Your task to perform on an android device: open app "Google Play Games" (install if not already installed) Image 0: 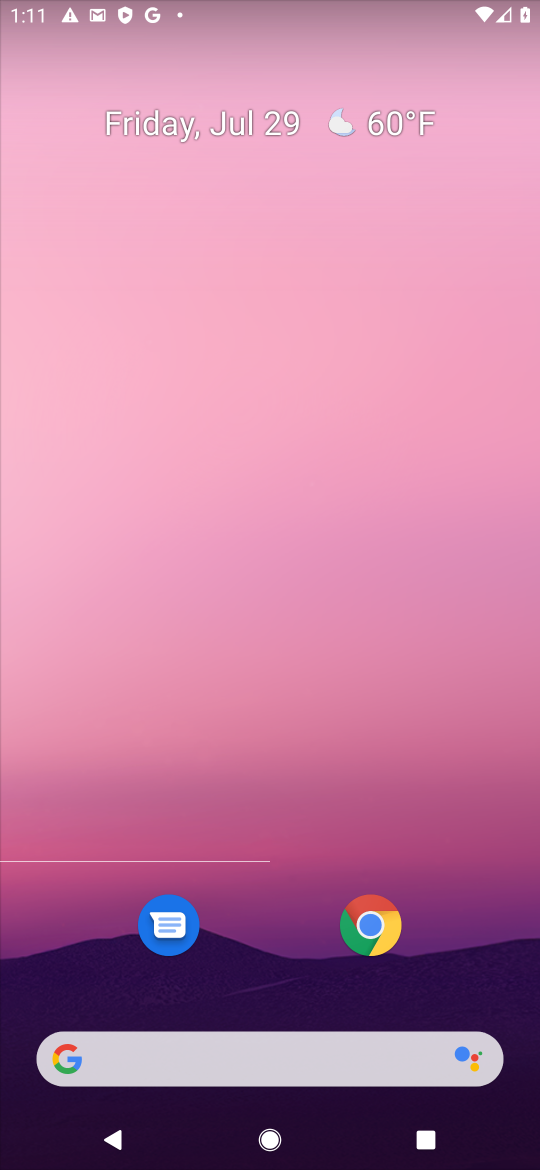
Step 0: press home button
Your task to perform on an android device: open app "Google Play Games" (install if not already installed) Image 1: 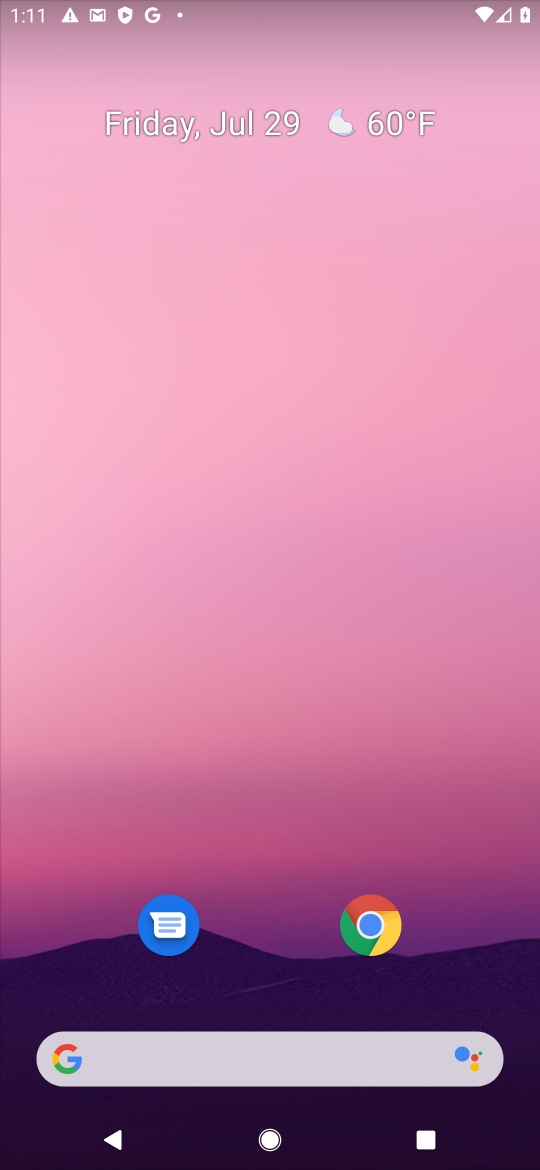
Step 1: drag from (223, 740) to (267, 272)
Your task to perform on an android device: open app "Google Play Games" (install if not already installed) Image 2: 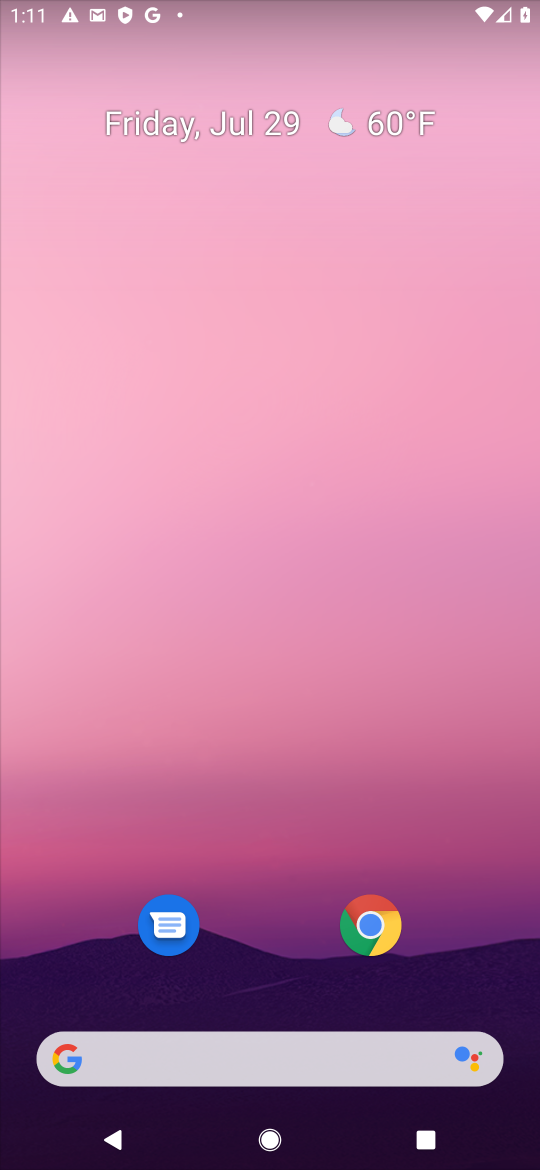
Step 2: drag from (386, 901) to (461, 105)
Your task to perform on an android device: open app "Google Play Games" (install if not already installed) Image 3: 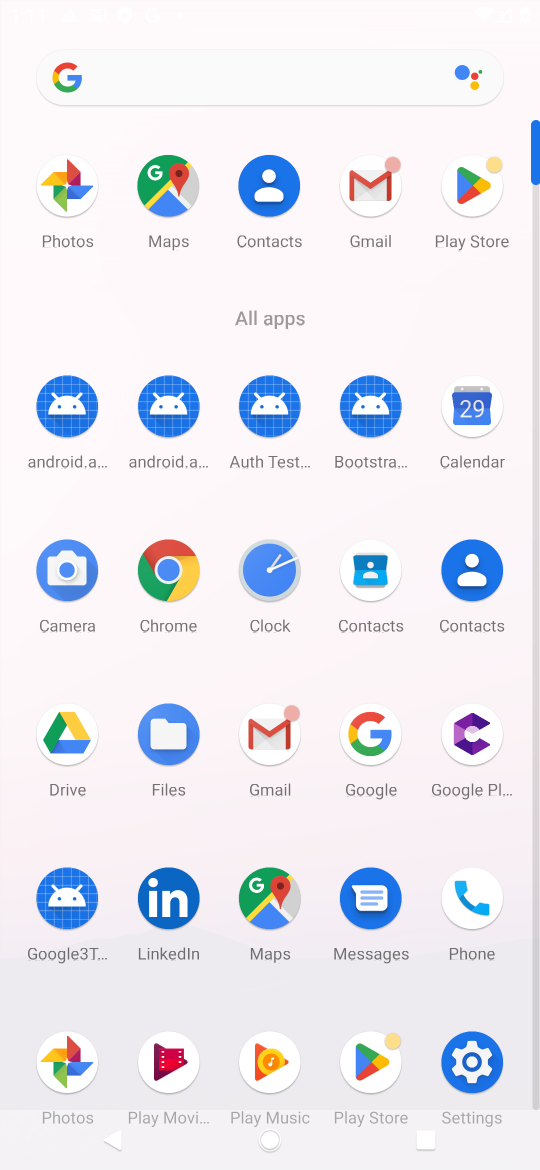
Step 3: click (477, 193)
Your task to perform on an android device: open app "Google Play Games" (install if not already installed) Image 4: 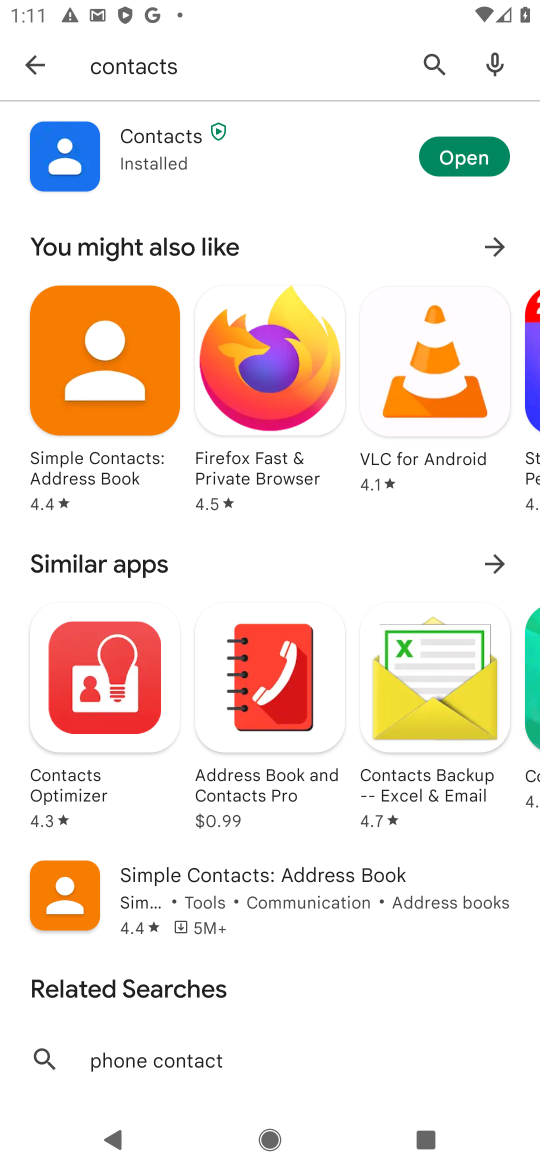
Step 4: click (429, 61)
Your task to perform on an android device: open app "Google Play Games" (install if not already installed) Image 5: 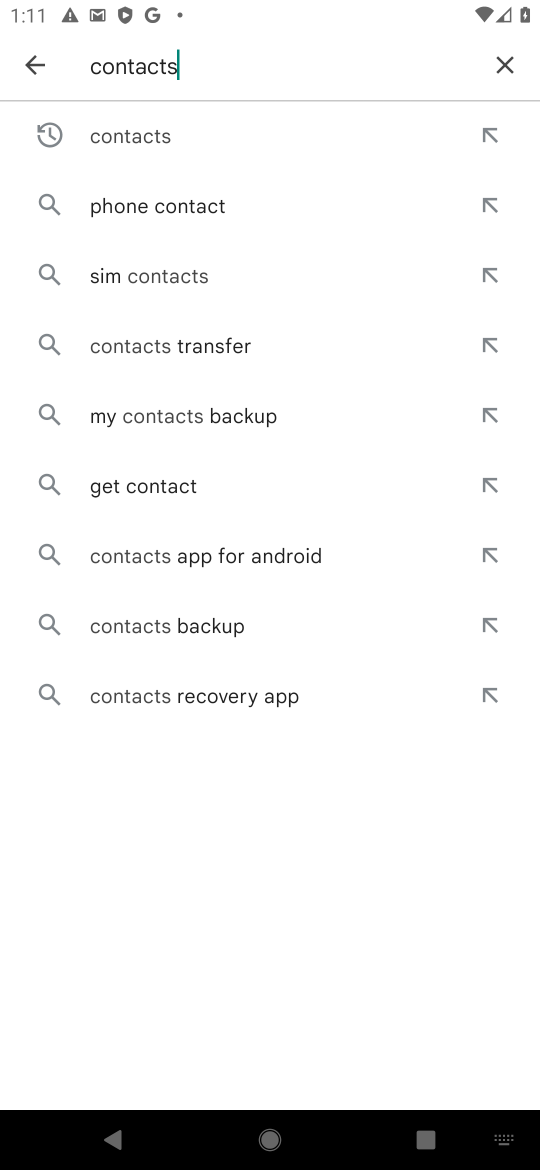
Step 5: click (511, 66)
Your task to perform on an android device: open app "Google Play Games" (install if not already installed) Image 6: 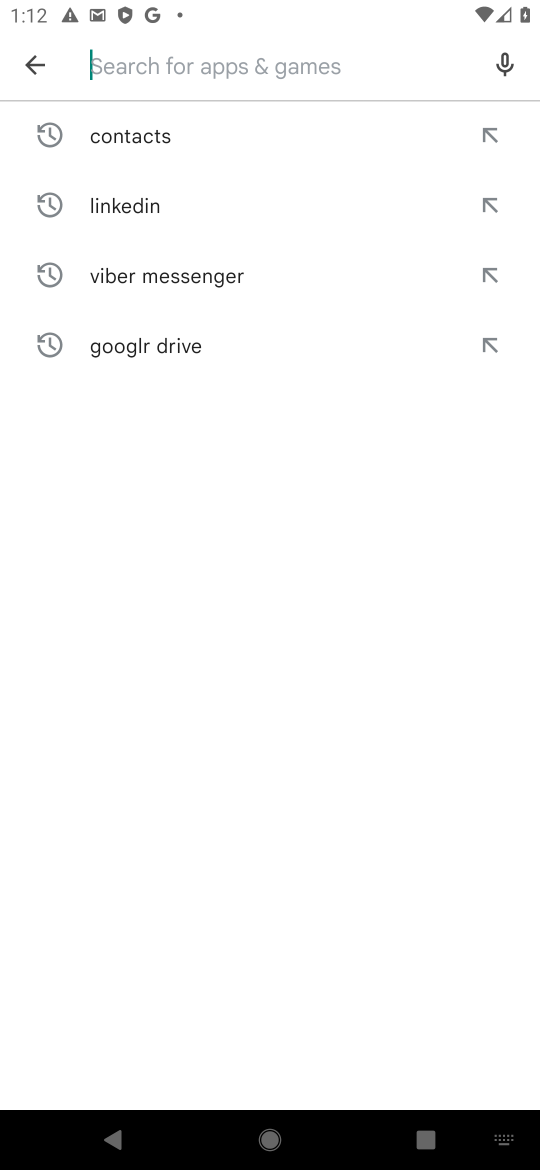
Step 6: type "google play games"
Your task to perform on an android device: open app "Google Play Games" (install if not already installed) Image 7: 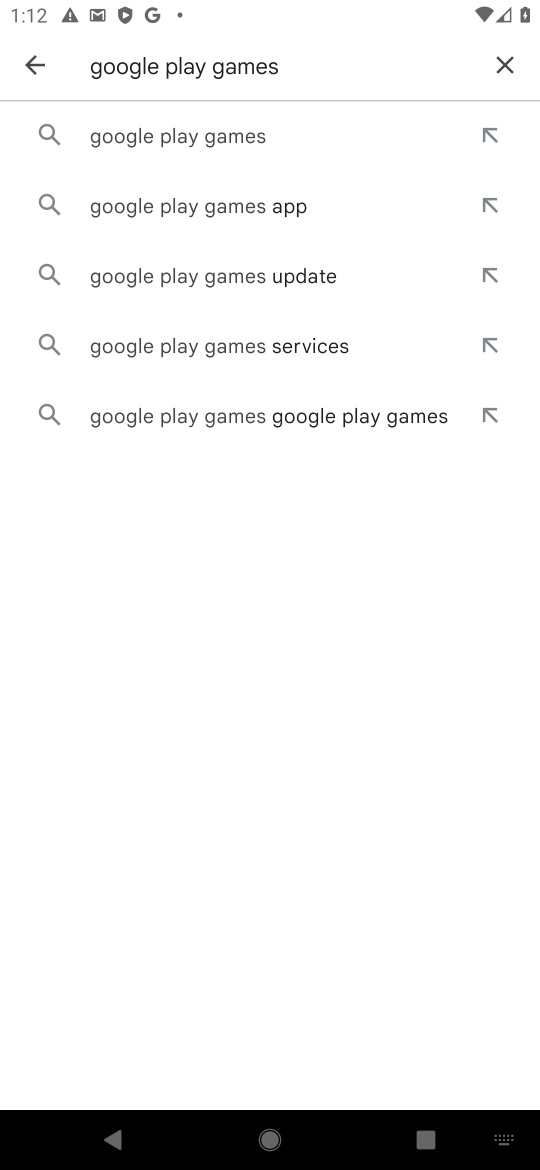
Step 7: click (244, 139)
Your task to perform on an android device: open app "Google Play Games" (install if not already installed) Image 8: 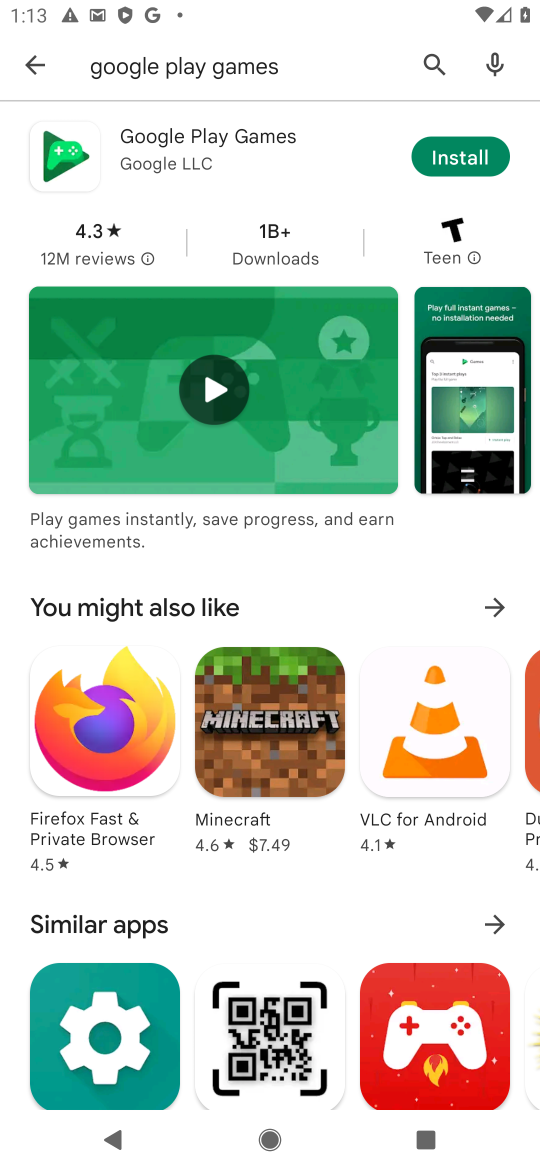
Step 8: click (488, 158)
Your task to perform on an android device: open app "Google Play Games" (install if not already installed) Image 9: 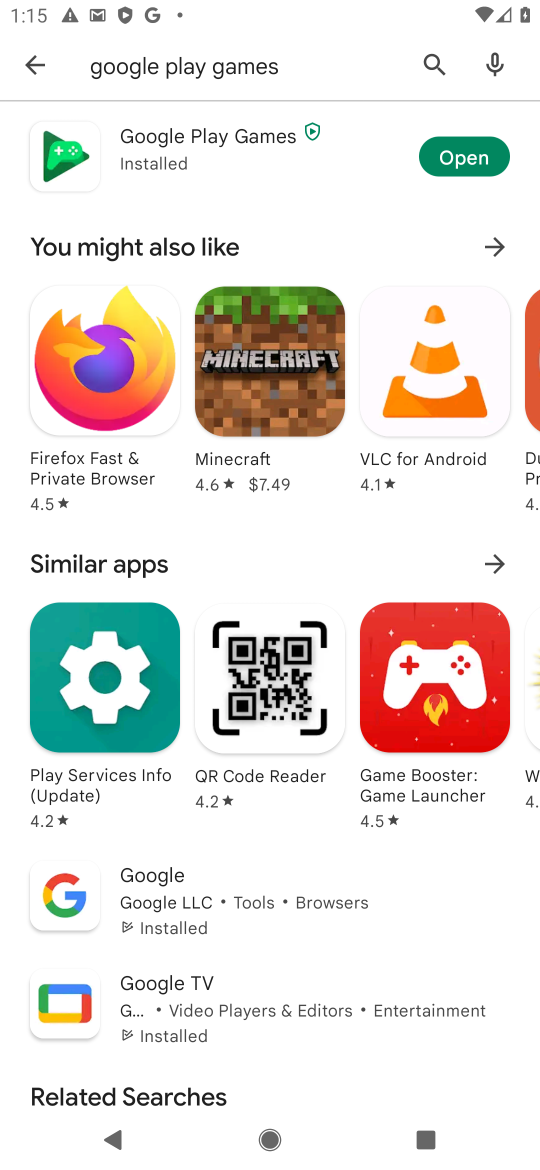
Step 9: click (465, 174)
Your task to perform on an android device: open app "Google Play Games" (install if not already installed) Image 10: 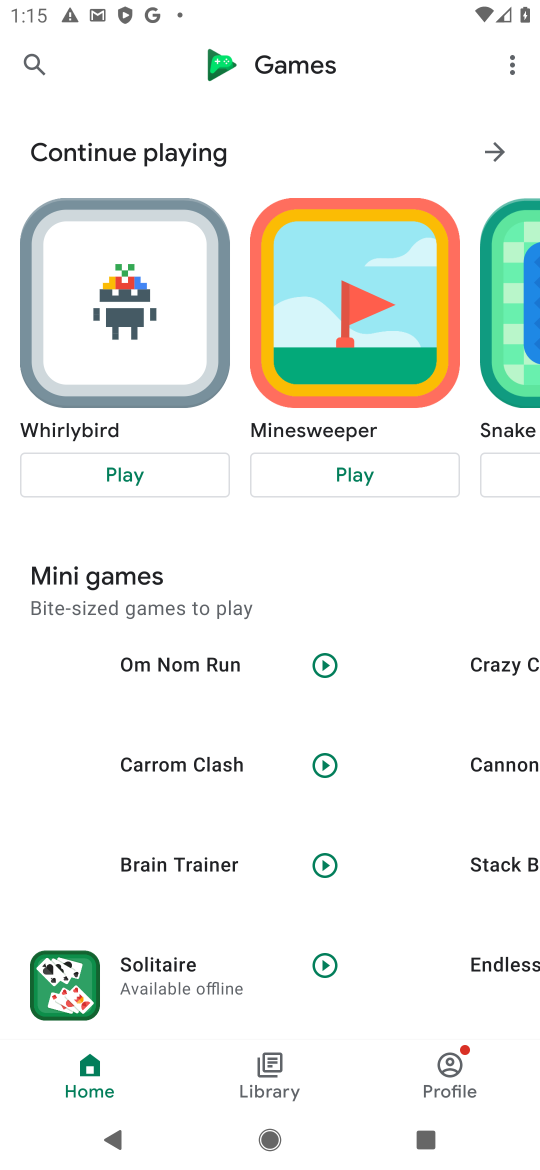
Step 10: task complete